Your task to perform on an android device: open app "Google Home" Image 0: 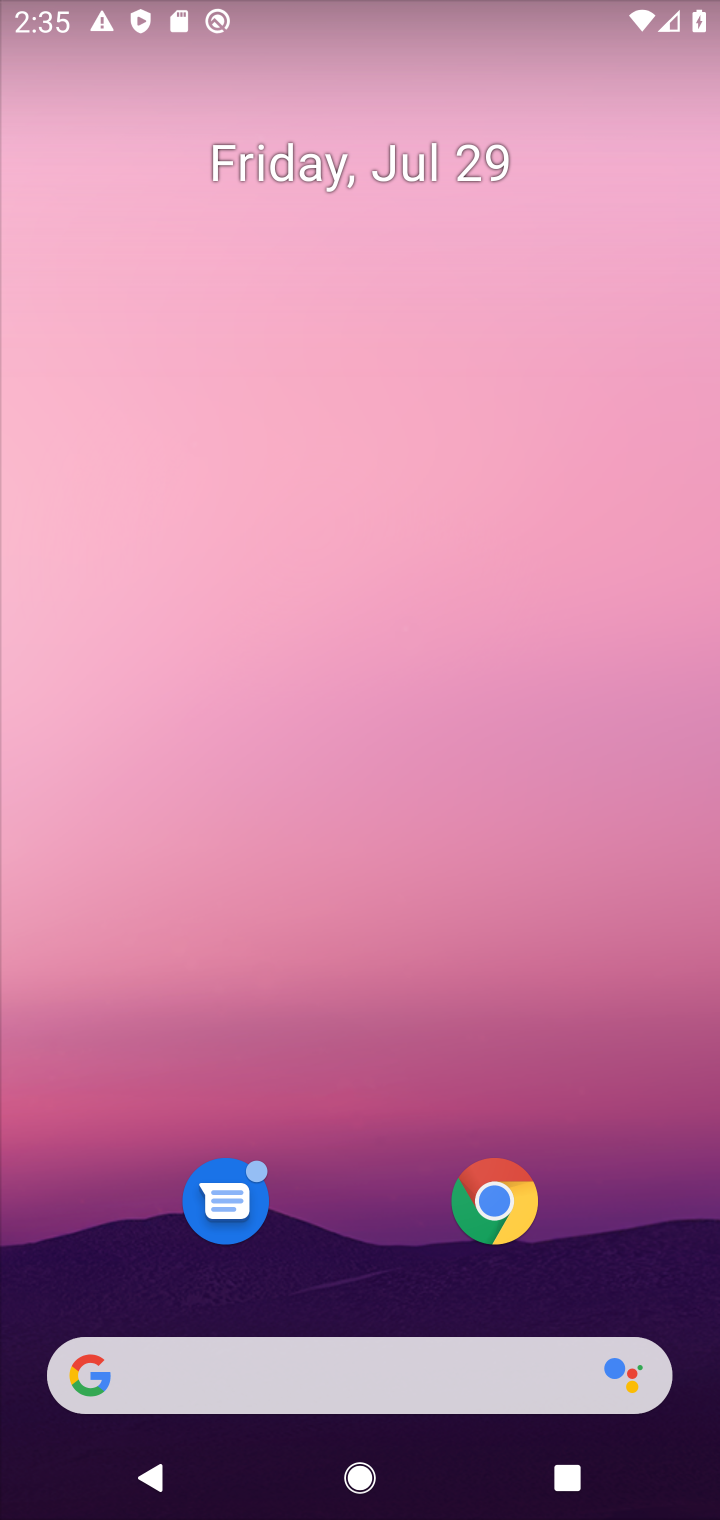
Step 0: drag from (598, 1114) to (424, 46)
Your task to perform on an android device: open app "Google Home" Image 1: 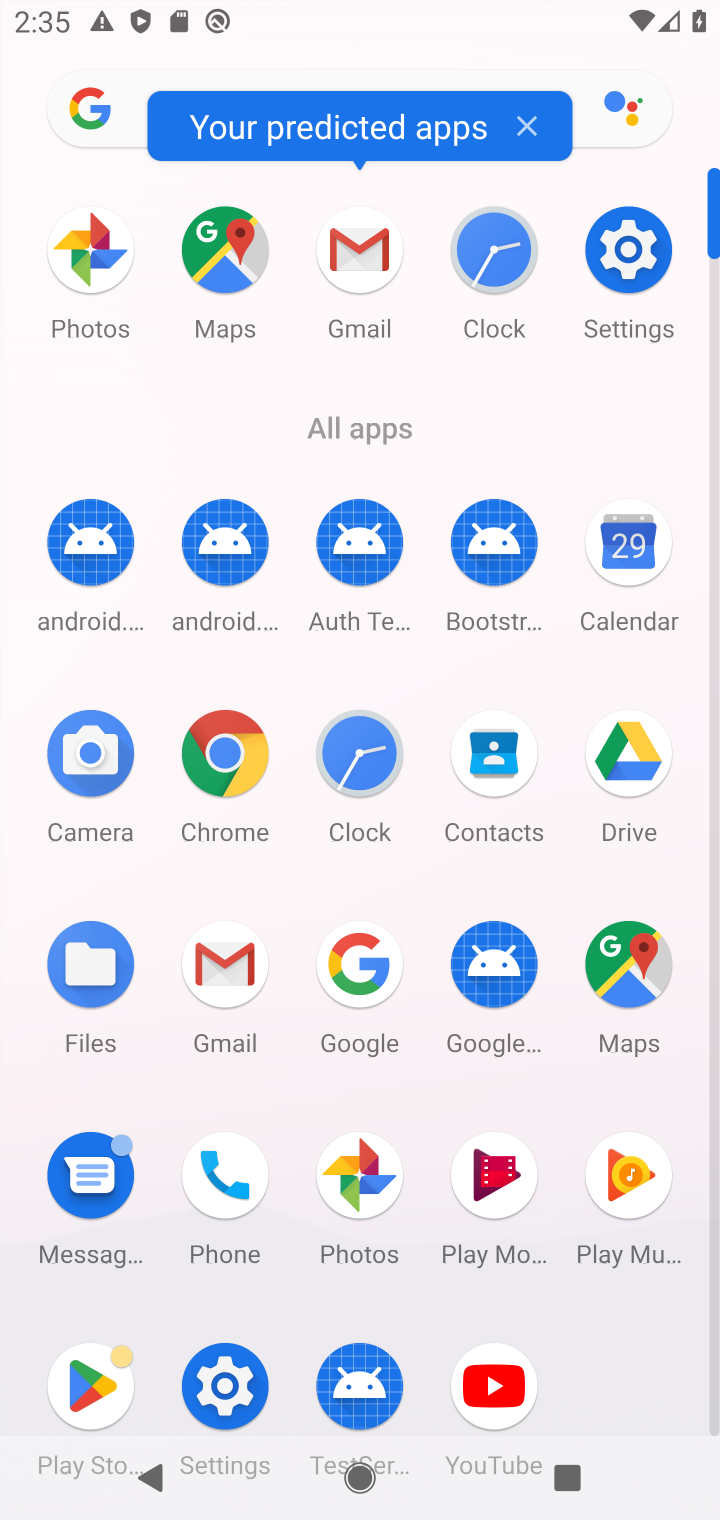
Step 1: click (98, 1408)
Your task to perform on an android device: open app "Google Home" Image 2: 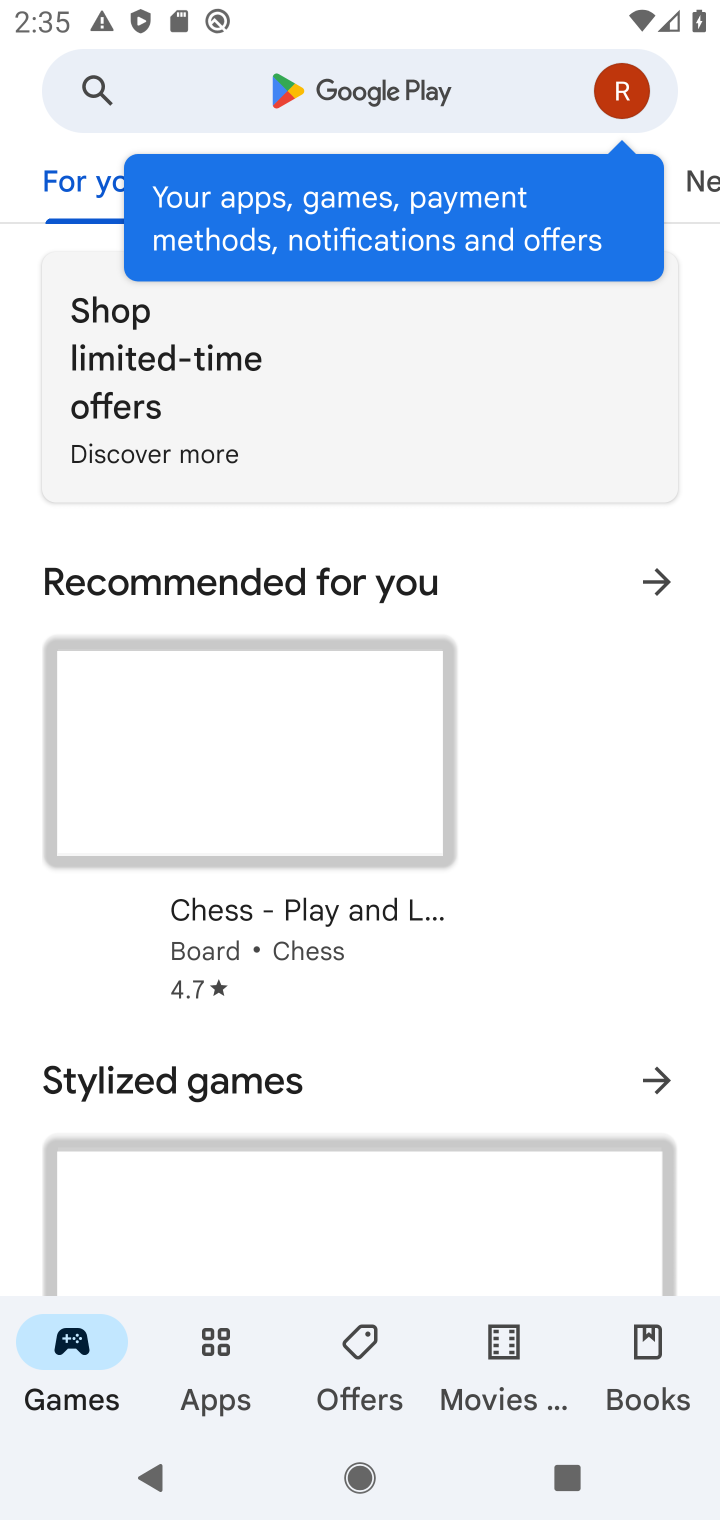
Step 2: click (558, 98)
Your task to perform on an android device: open app "Google Home" Image 3: 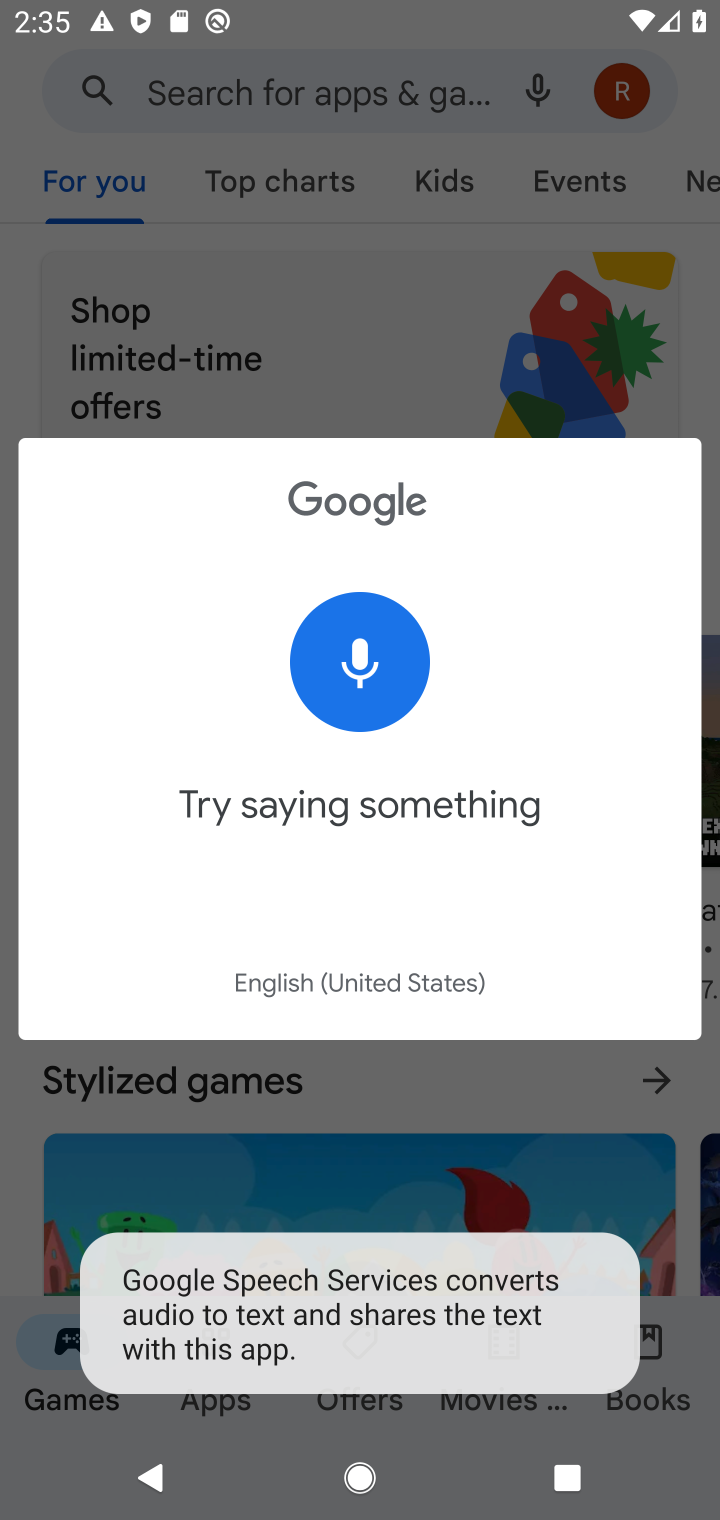
Step 3: type "Google Home""
Your task to perform on an android device: open app "Google Home" Image 4: 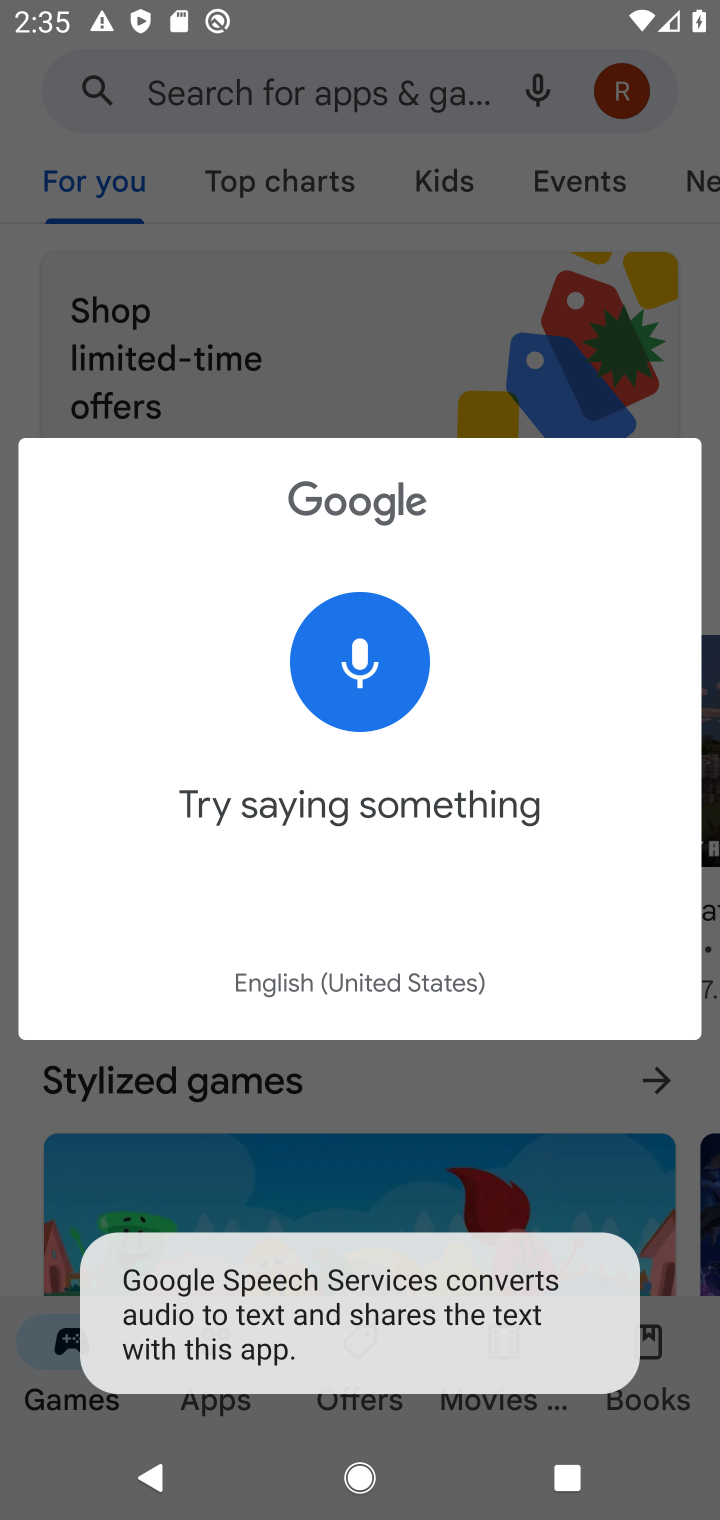
Step 4: click (356, 317)
Your task to perform on an android device: open app "Google Home" Image 5: 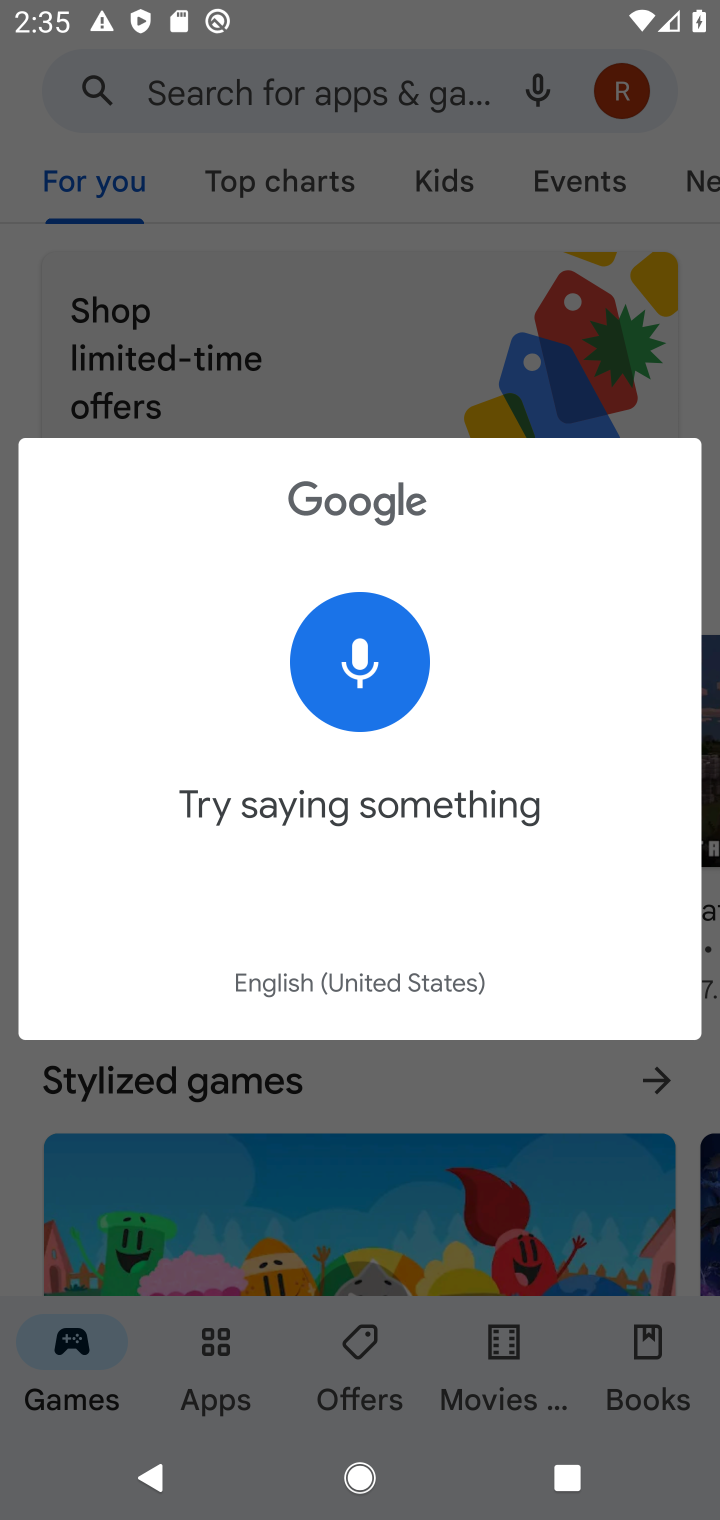
Step 5: click (323, 79)
Your task to perform on an android device: open app "Google Home" Image 6: 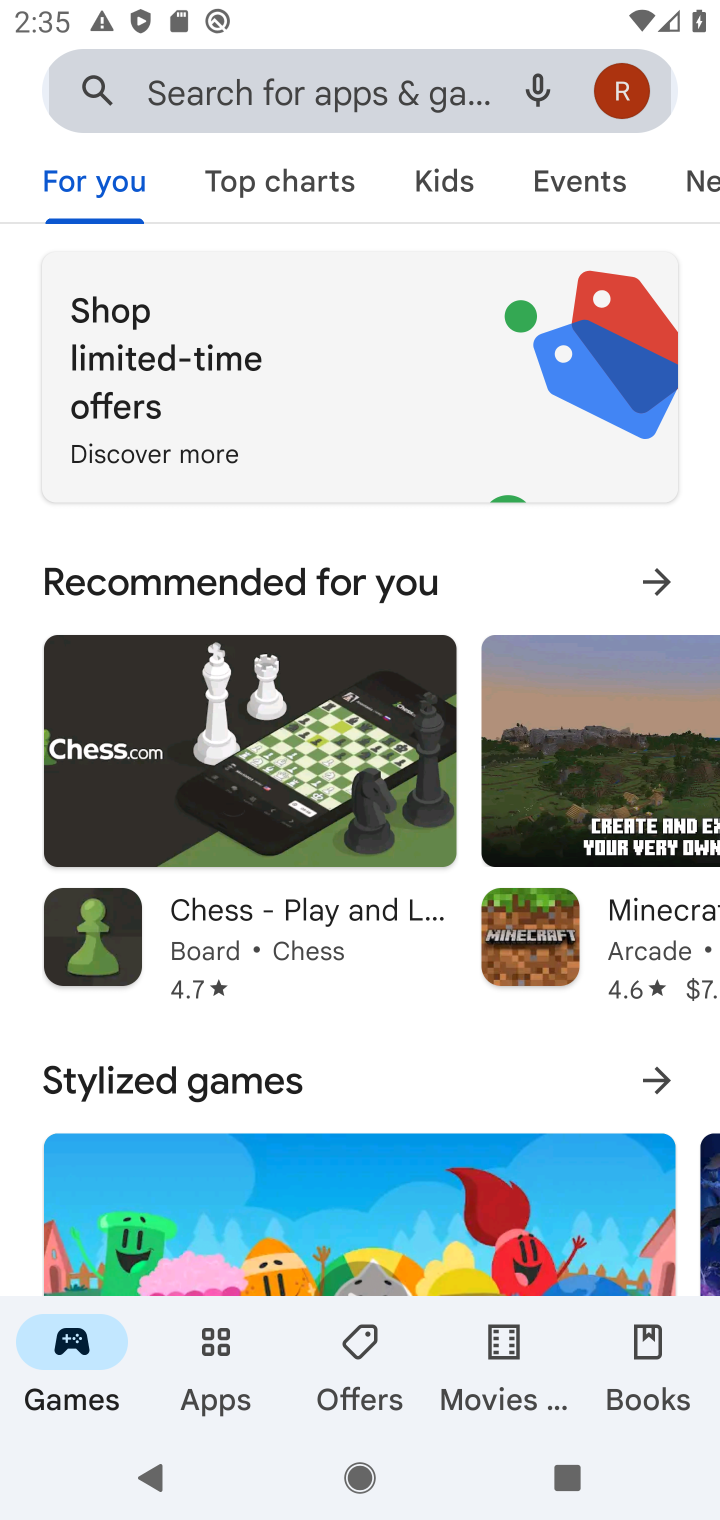
Step 6: click (323, 79)
Your task to perform on an android device: open app "Google Home" Image 7: 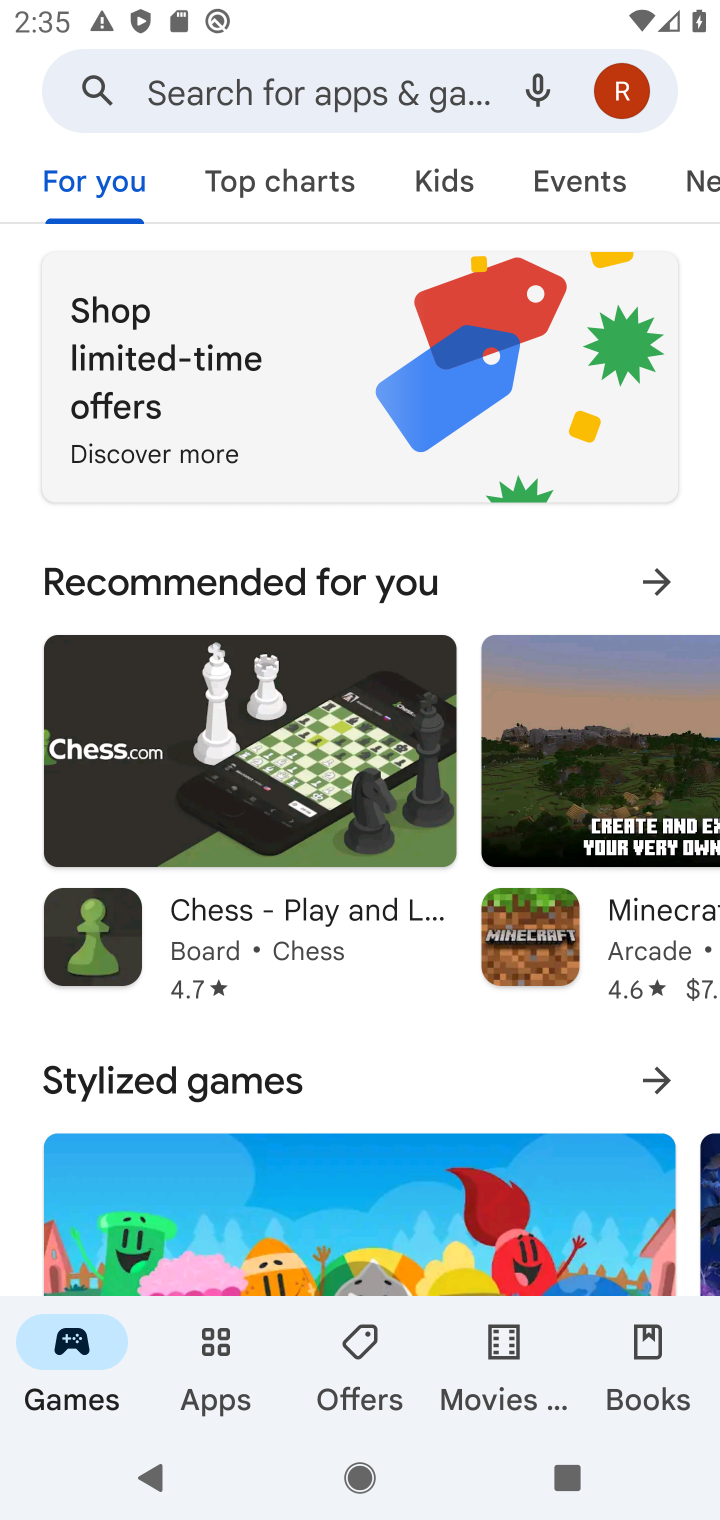
Step 7: click (323, 79)
Your task to perform on an android device: open app "Google Home" Image 8: 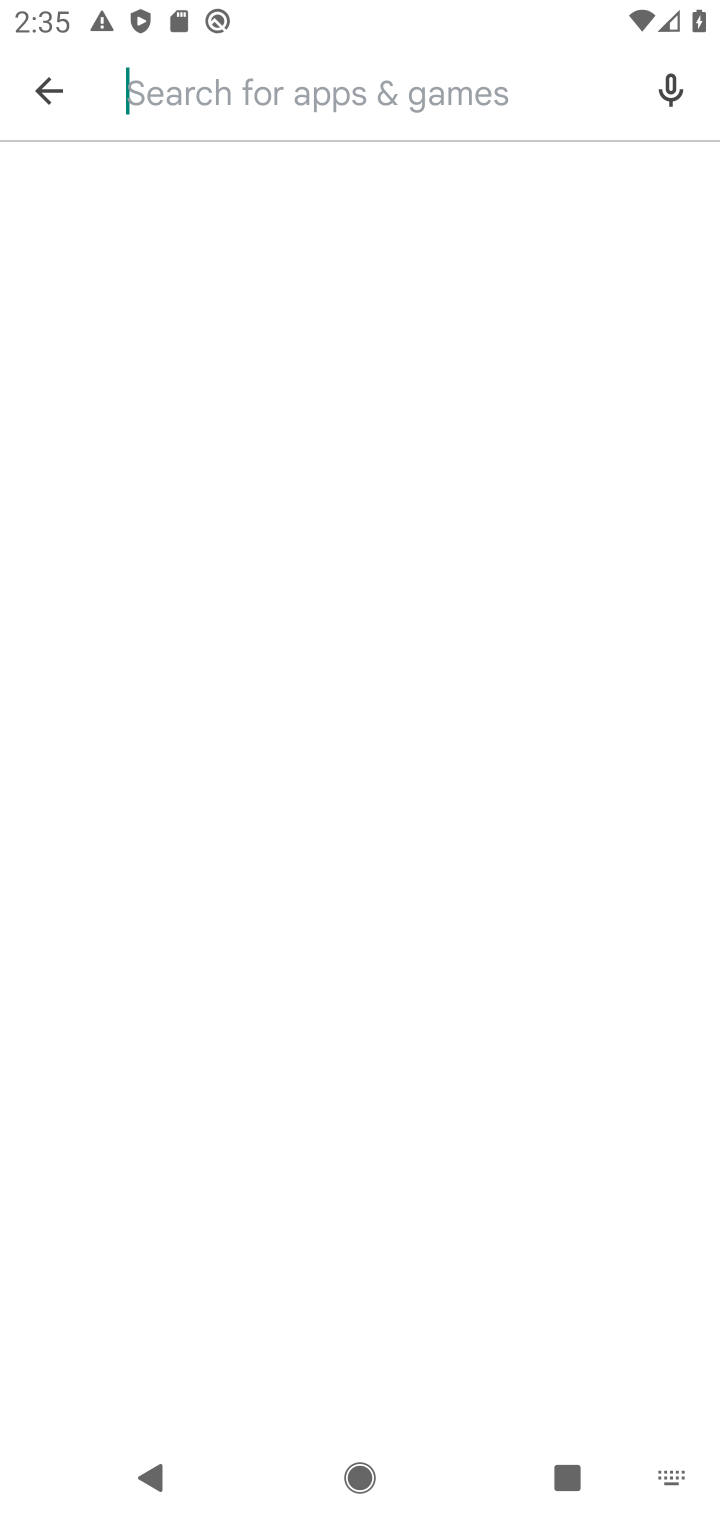
Step 8: click (323, 79)
Your task to perform on an android device: open app "Google Home" Image 9: 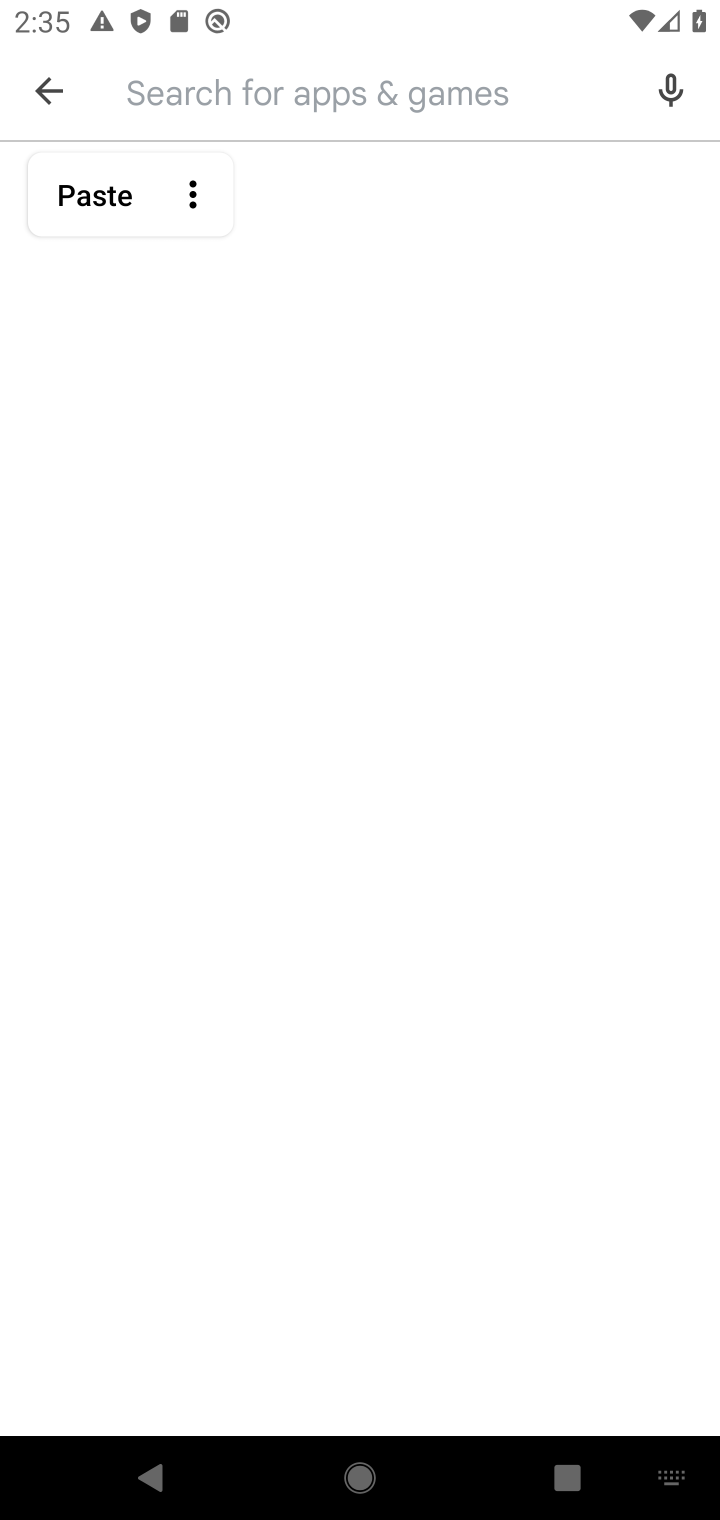
Step 9: type "Google Home""
Your task to perform on an android device: open app "Google Home" Image 10: 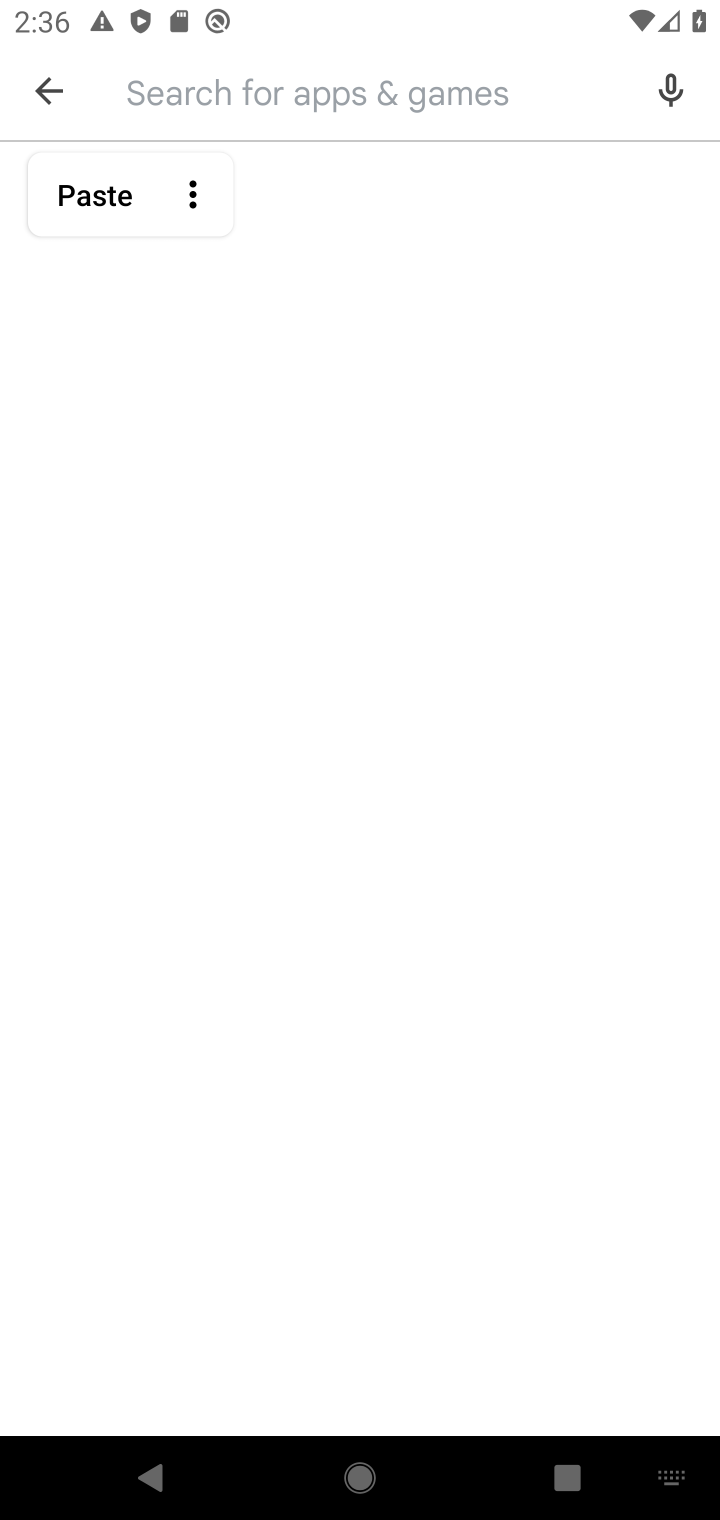
Step 10: type "google home"
Your task to perform on an android device: open app "Google Home" Image 11: 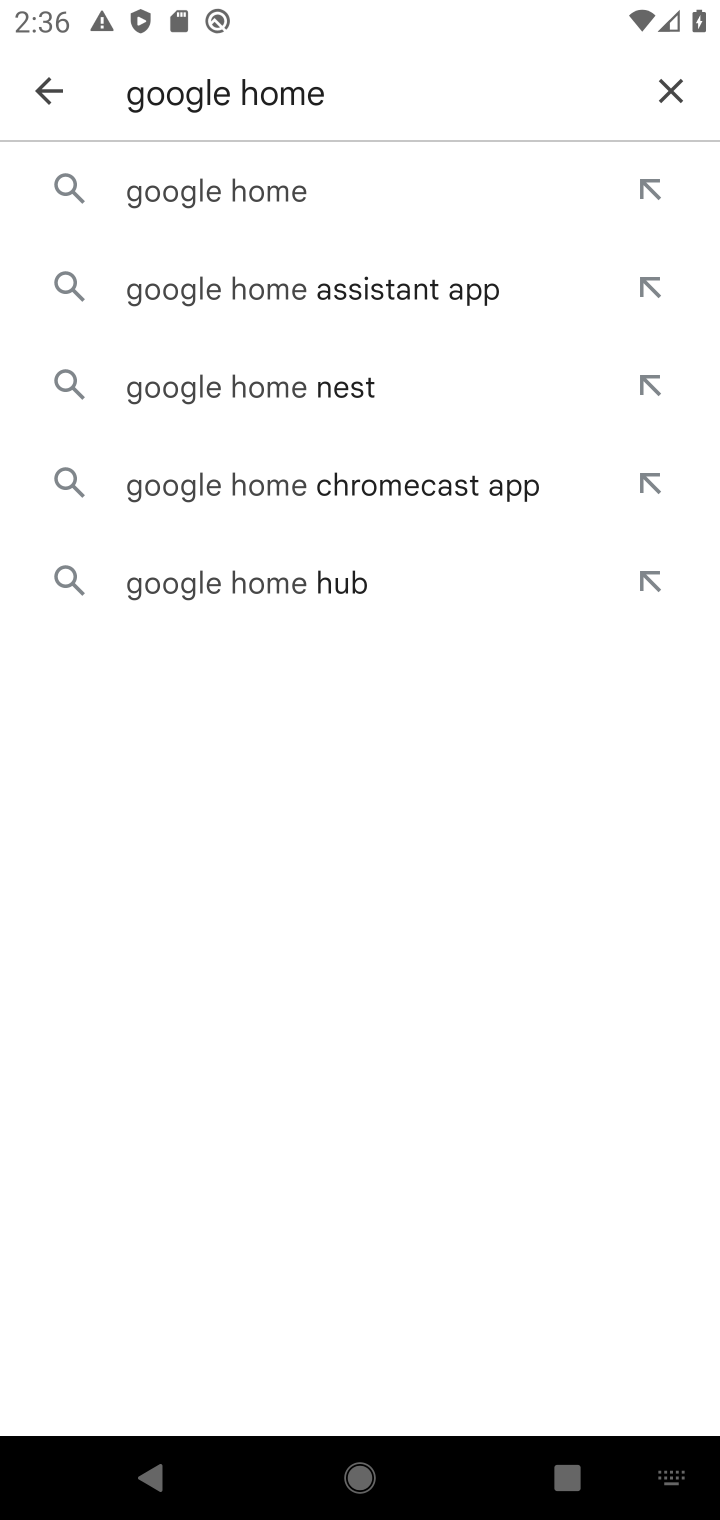
Step 11: click (259, 188)
Your task to perform on an android device: open app "Google Home" Image 12: 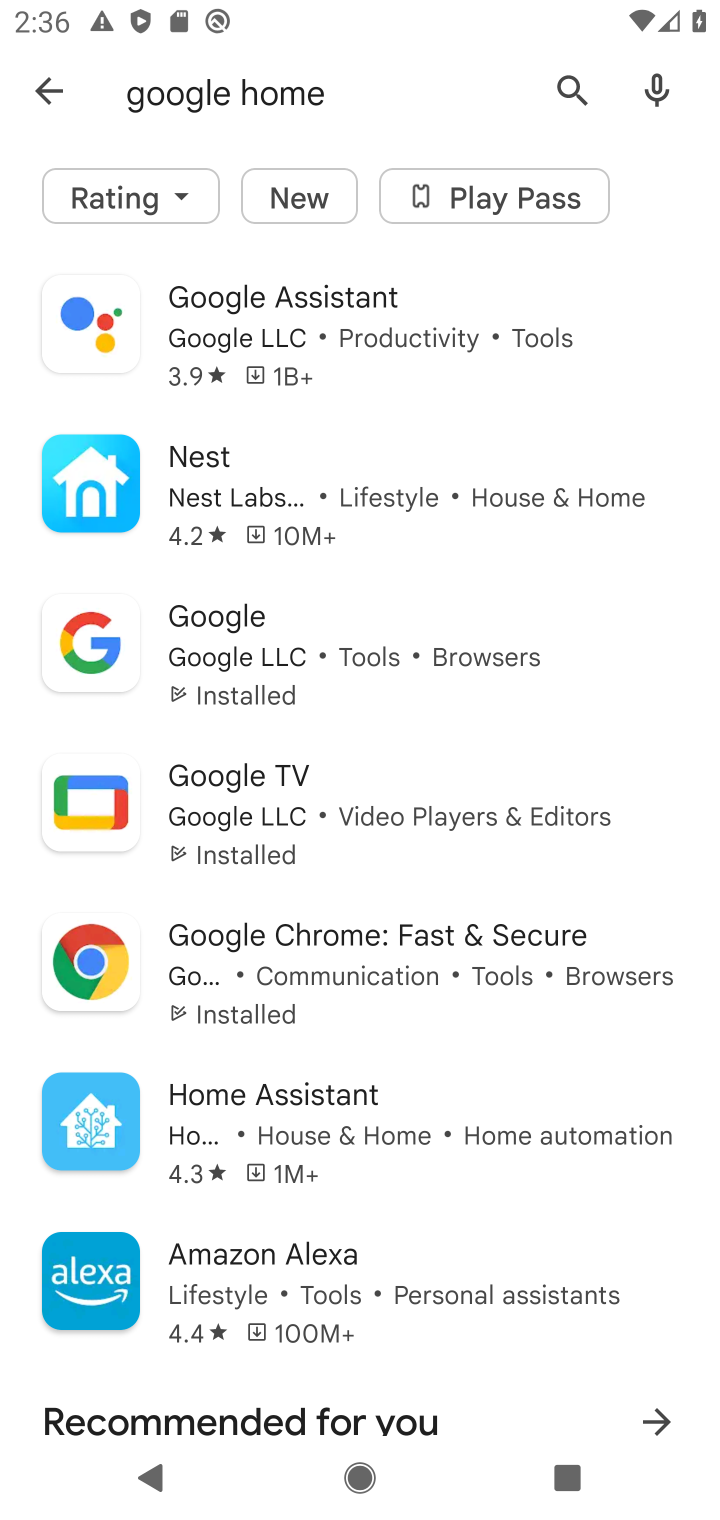
Step 12: task complete